Your task to perform on an android device: turn off improve location accuracy Image 0: 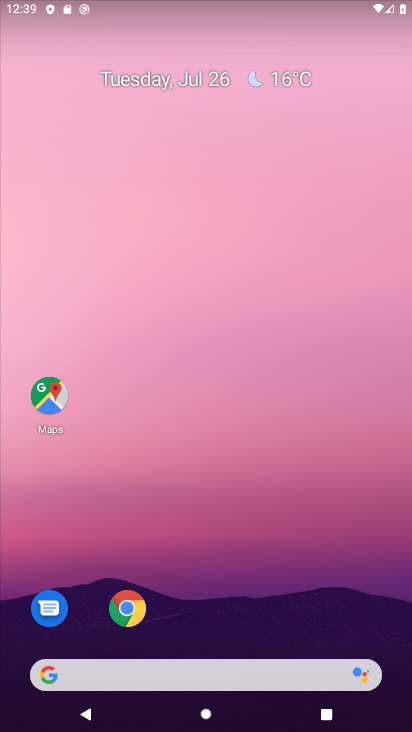
Step 0: drag from (337, 617) to (340, 311)
Your task to perform on an android device: turn off improve location accuracy Image 1: 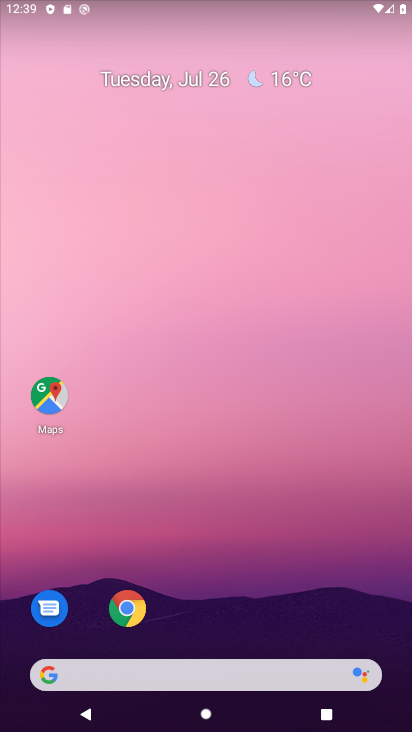
Step 1: task complete